Your task to perform on an android device: toggle sleep mode Image 0: 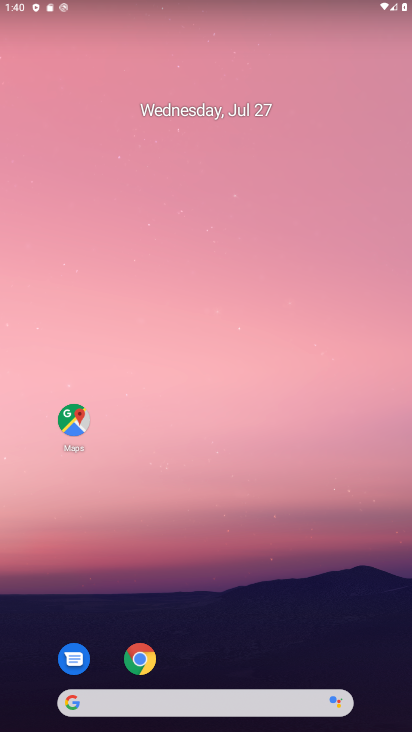
Step 0: drag from (267, 2) to (269, 459)
Your task to perform on an android device: toggle sleep mode Image 1: 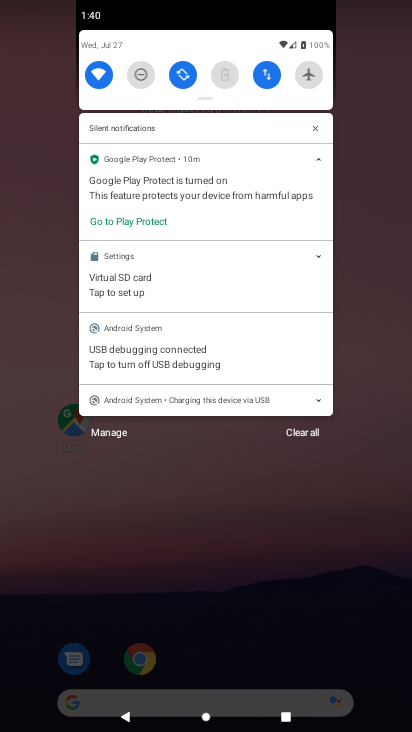
Step 1: task complete